Your task to perform on an android device: turn on notifications settings in the gmail app Image 0: 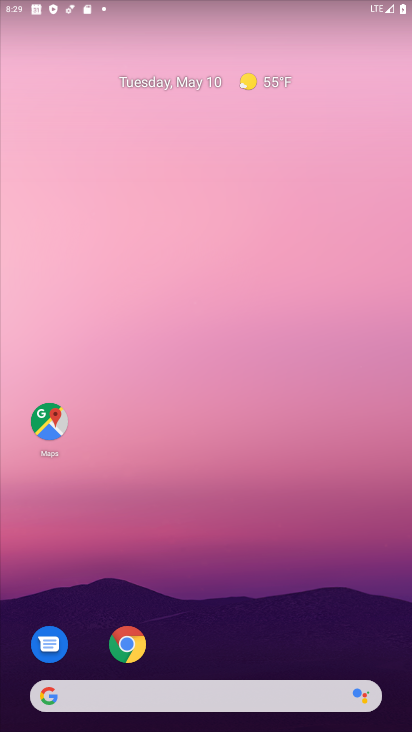
Step 0: drag from (120, 545) to (228, 117)
Your task to perform on an android device: turn on notifications settings in the gmail app Image 1: 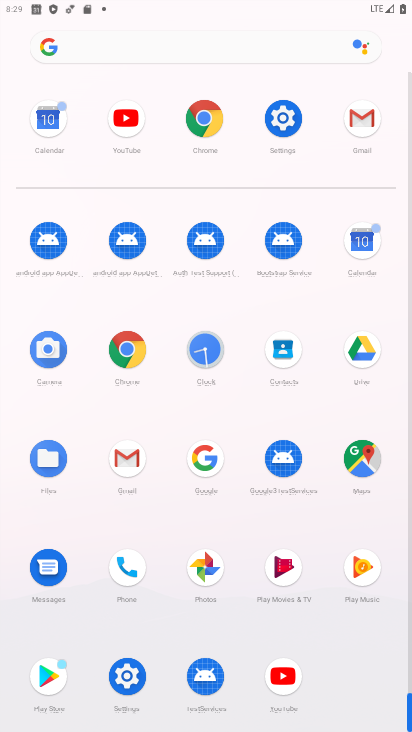
Step 1: click (122, 473)
Your task to perform on an android device: turn on notifications settings in the gmail app Image 2: 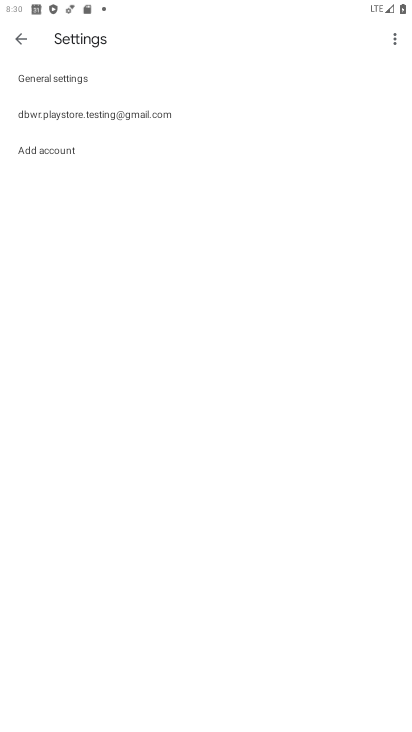
Step 2: click (127, 76)
Your task to perform on an android device: turn on notifications settings in the gmail app Image 3: 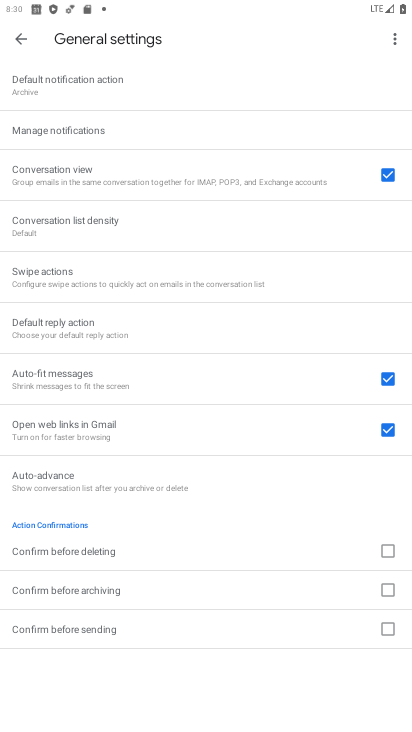
Step 3: click (71, 133)
Your task to perform on an android device: turn on notifications settings in the gmail app Image 4: 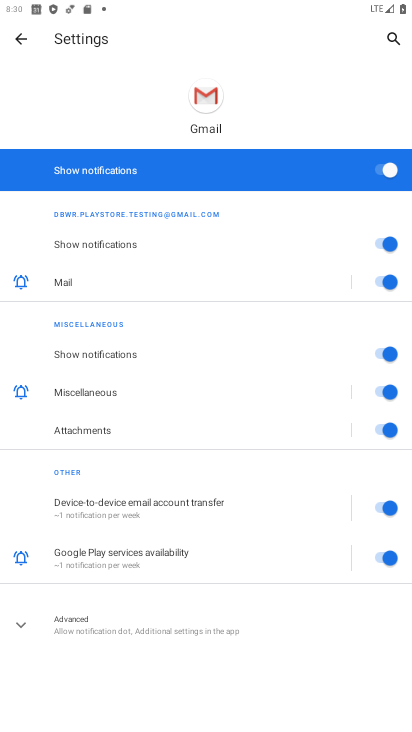
Step 4: task complete